Your task to perform on an android device: change the clock display to show seconds Image 0: 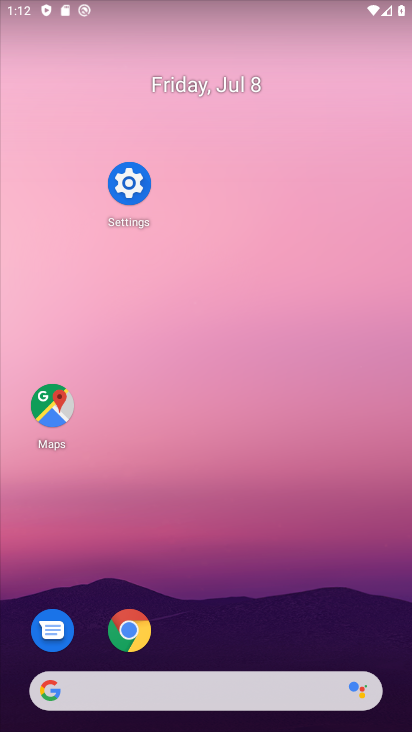
Step 0: drag from (262, 614) to (279, 12)
Your task to perform on an android device: change the clock display to show seconds Image 1: 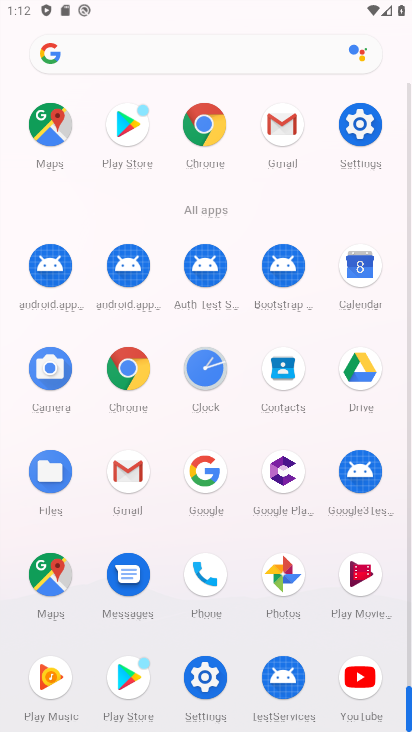
Step 1: drag from (216, 371) to (72, 216)
Your task to perform on an android device: change the clock display to show seconds Image 2: 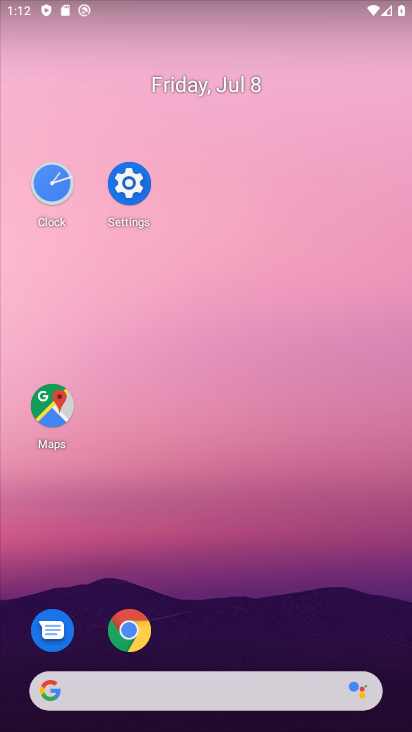
Step 2: click (42, 182)
Your task to perform on an android device: change the clock display to show seconds Image 3: 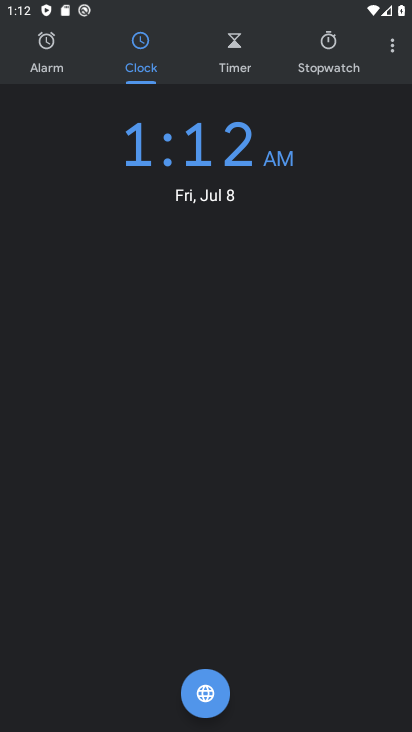
Step 3: click (388, 38)
Your task to perform on an android device: change the clock display to show seconds Image 4: 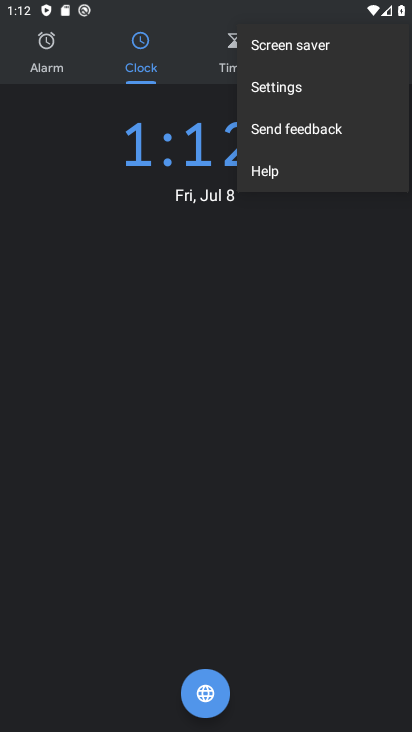
Step 4: click (276, 91)
Your task to perform on an android device: change the clock display to show seconds Image 5: 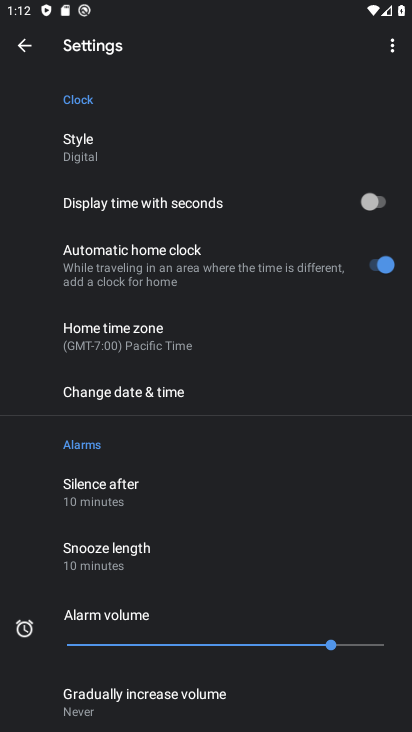
Step 5: click (375, 198)
Your task to perform on an android device: change the clock display to show seconds Image 6: 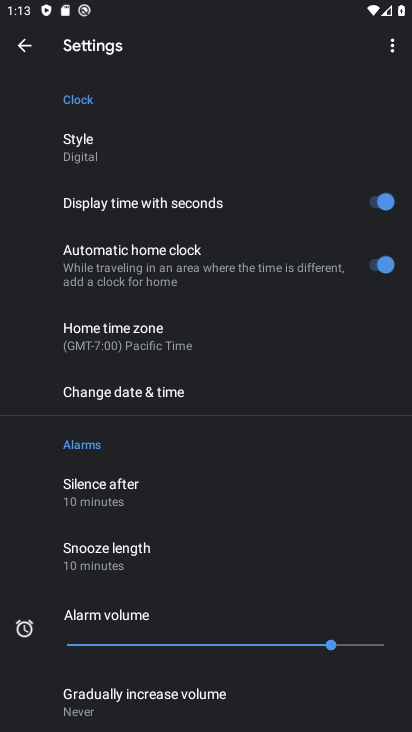
Step 6: task complete